Your task to perform on an android device: turn off notifications settings in the gmail app Image 0: 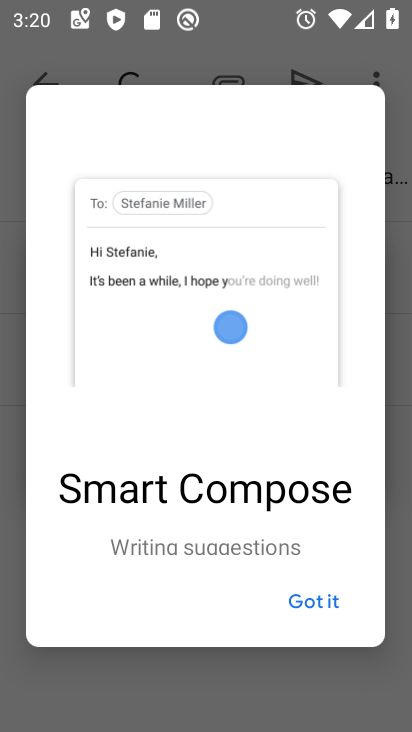
Step 0: press home button
Your task to perform on an android device: turn off notifications settings in the gmail app Image 1: 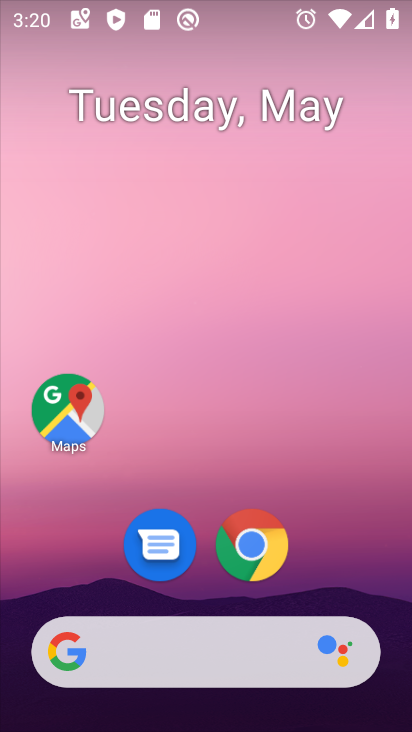
Step 1: drag from (200, 660) to (165, 238)
Your task to perform on an android device: turn off notifications settings in the gmail app Image 2: 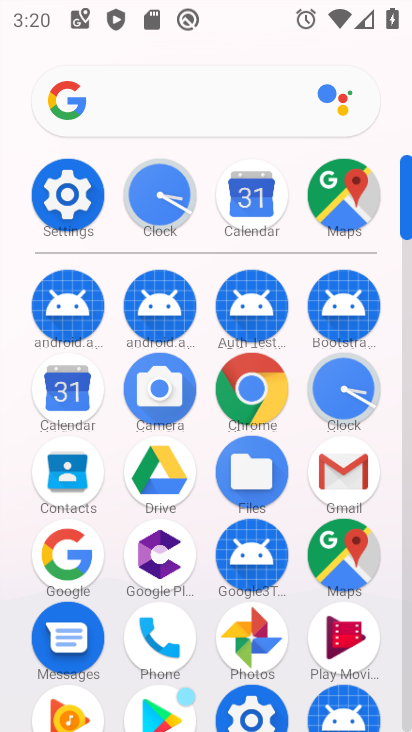
Step 2: click (360, 448)
Your task to perform on an android device: turn off notifications settings in the gmail app Image 3: 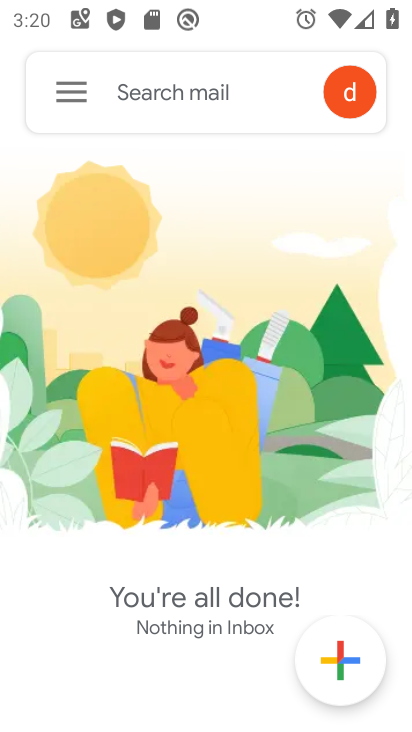
Step 3: click (68, 88)
Your task to perform on an android device: turn off notifications settings in the gmail app Image 4: 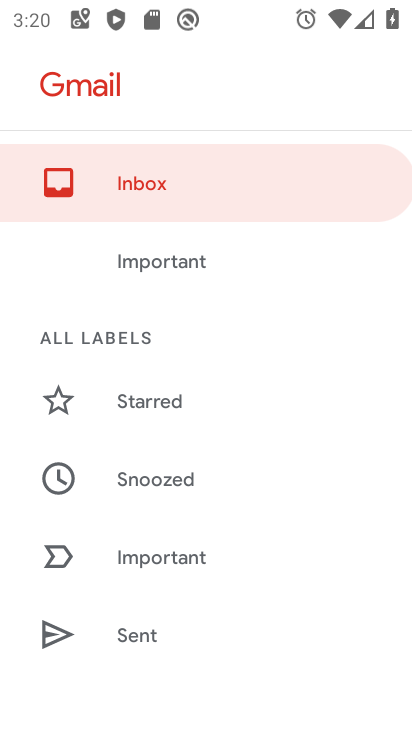
Step 4: drag from (153, 483) to (146, 75)
Your task to perform on an android device: turn off notifications settings in the gmail app Image 5: 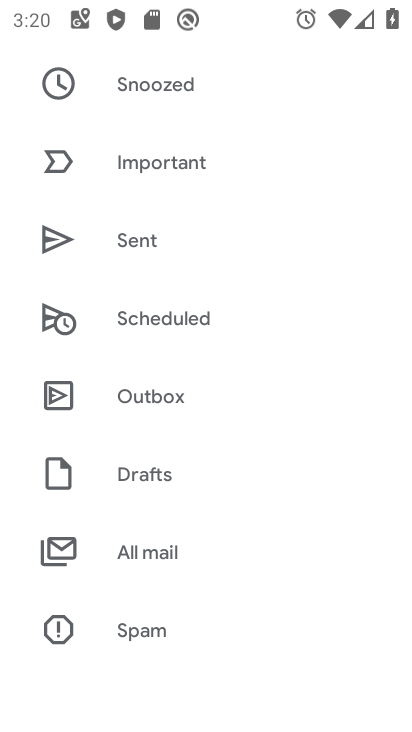
Step 5: drag from (153, 592) to (133, 129)
Your task to perform on an android device: turn off notifications settings in the gmail app Image 6: 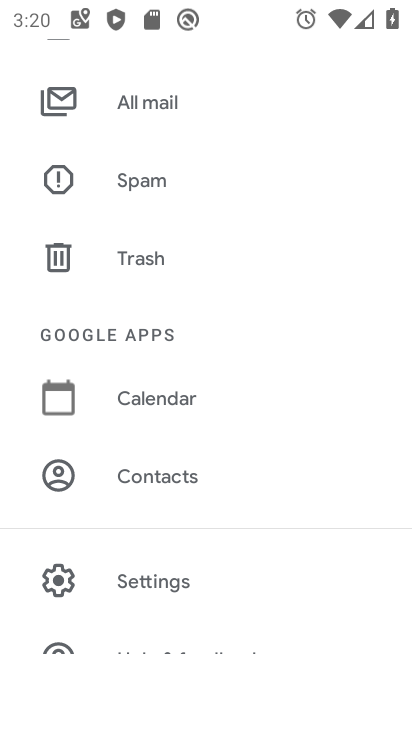
Step 6: click (184, 575)
Your task to perform on an android device: turn off notifications settings in the gmail app Image 7: 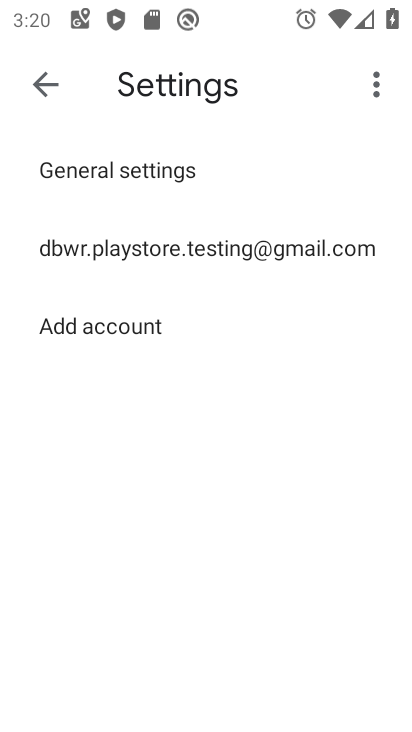
Step 7: click (154, 240)
Your task to perform on an android device: turn off notifications settings in the gmail app Image 8: 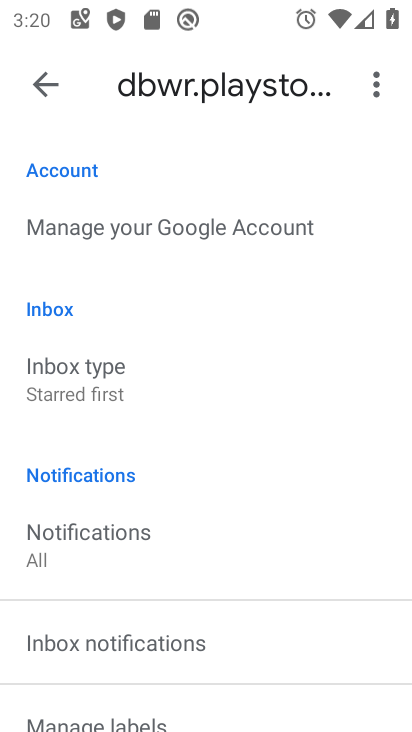
Step 8: drag from (209, 512) to (212, 157)
Your task to perform on an android device: turn off notifications settings in the gmail app Image 9: 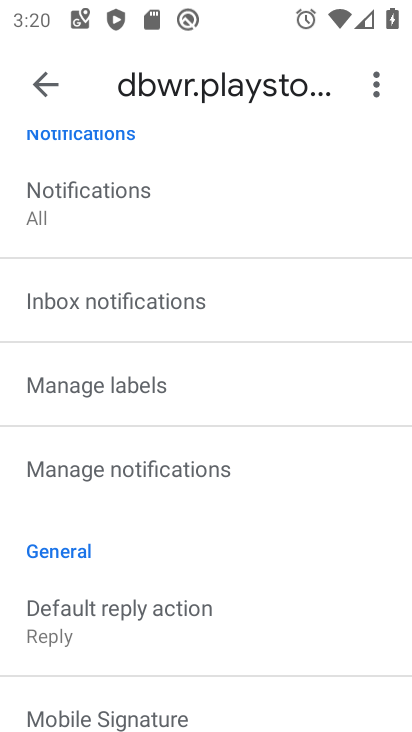
Step 9: click (141, 456)
Your task to perform on an android device: turn off notifications settings in the gmail app Image 10: 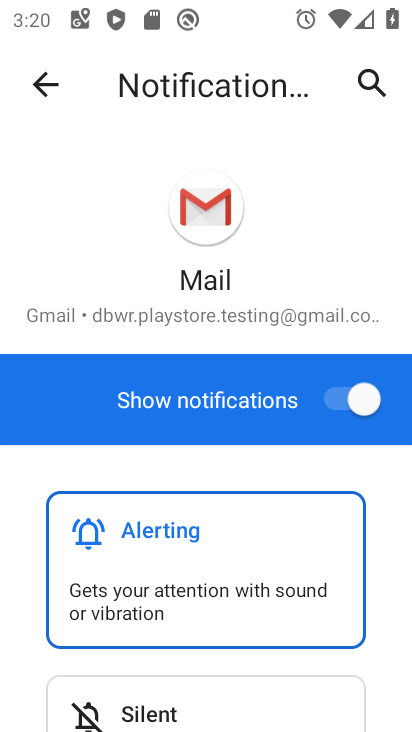
Step 10: click (332, 391)
Your task to perform on an android device: turn off notifications settings in the gmail app Image 11: 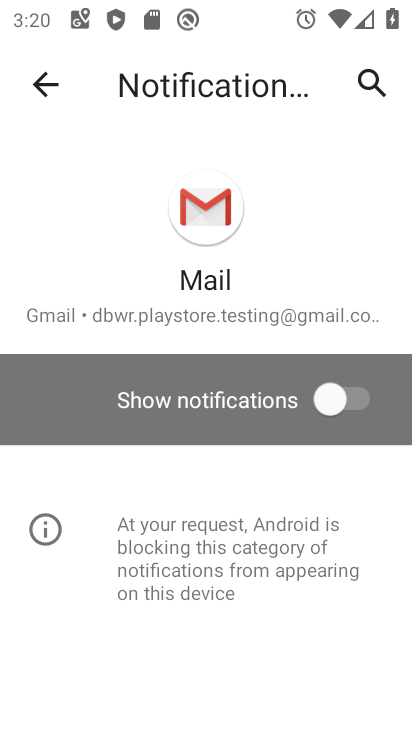
Step 11: task complete